Your task to perform on an android device: Go to Wikipedia Image 0: 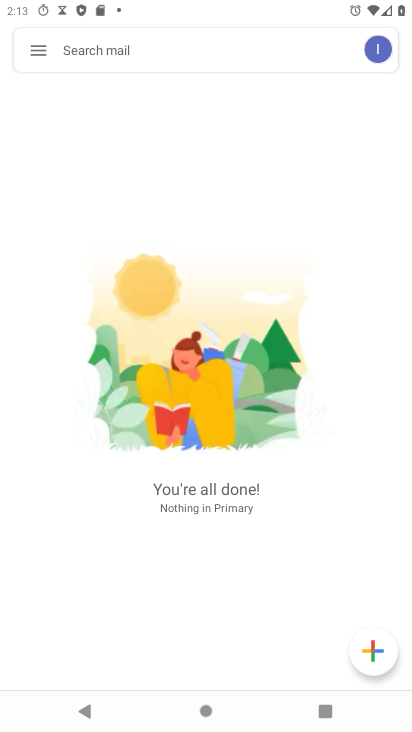
Step 0: press home button
Your task to perform on an android device: Go to Wikipedia Image 1: 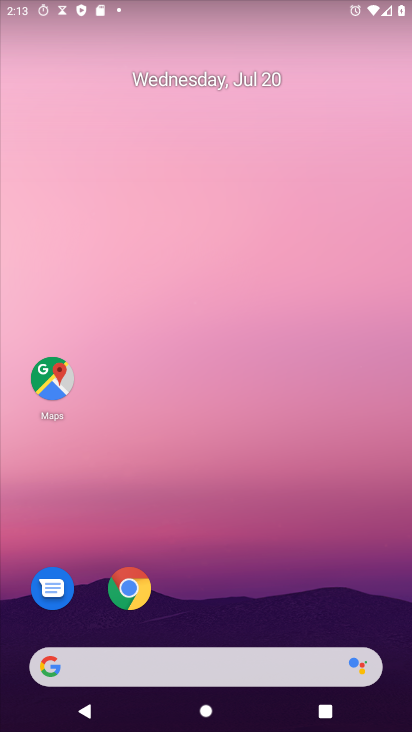
Step 1: drag from (326, 602) to (295, 33)
Your task to perform on an android device: Go to Wikipedia Image 2: 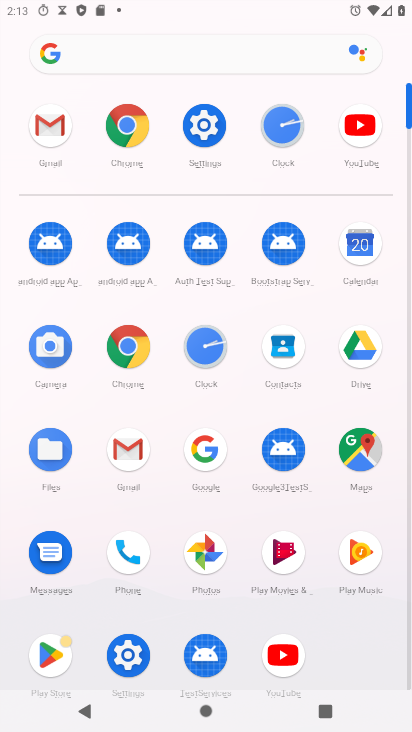
Step 2: click (125, 341)
Your task to perform on an android device: Go to Wikipedia Image 3: 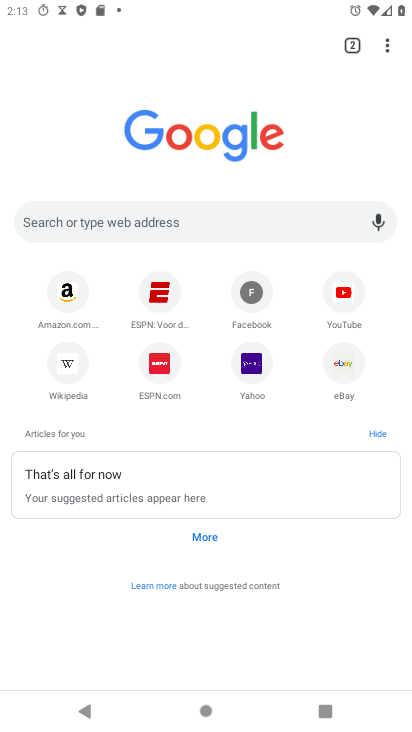
Step 3: click (78, 366)
Your task to perform on an android device: Go to Wikipedia Image 4: 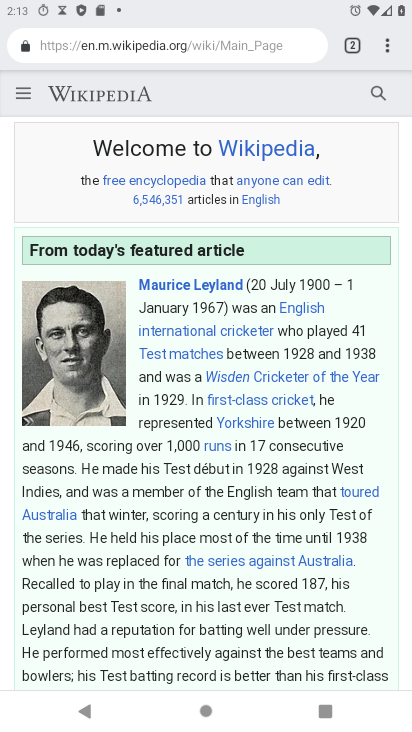
Step 4: task complete